Your task to perform on an android device: Check the weather Image 0: 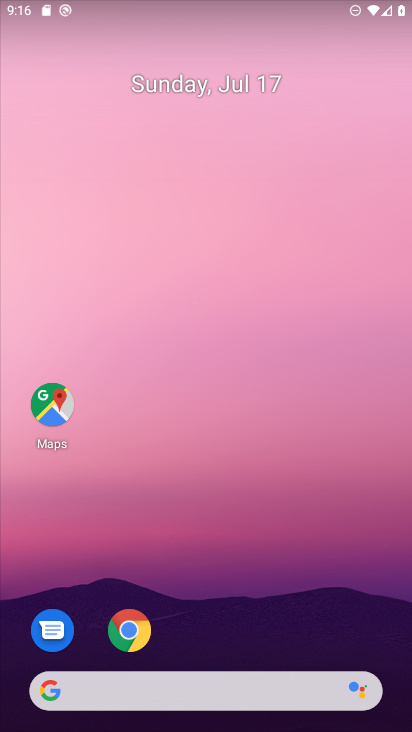
Step 0: drag from (332, 608) to (227, 1)
Your task to perform on an android device: Check the weather Image 1: 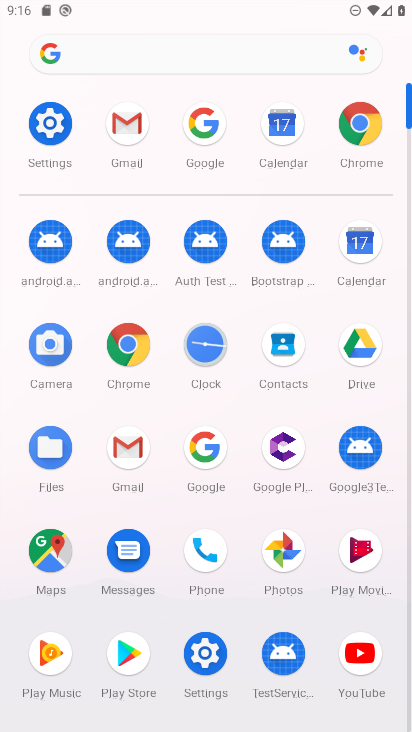
Step 1: click (202, 139)
Your task to perform on an android device: Check the weather Image 2: 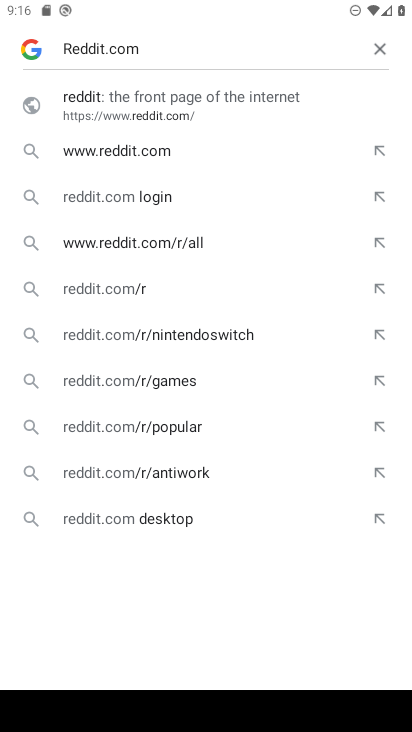
Step 2: click (384, 49)
Your task to perform on an android device: Check the weather Image 3: 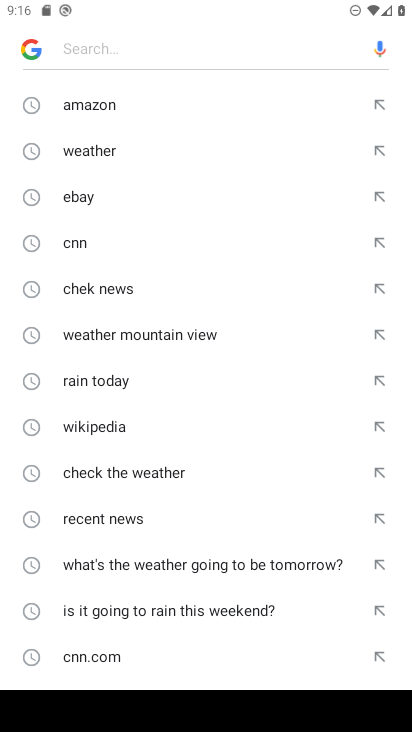
Step 3: click (94, 145)
Your task to perform on an android device: Check the weather Image 4: 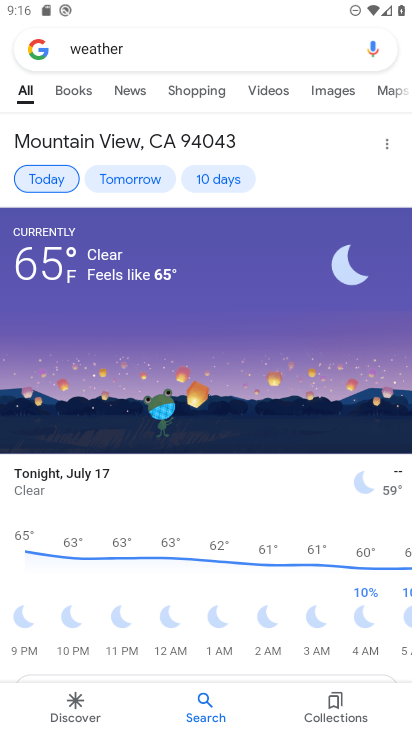
Step 4: task complete